Your task to perform on an android device: Go to display settings Image 0: 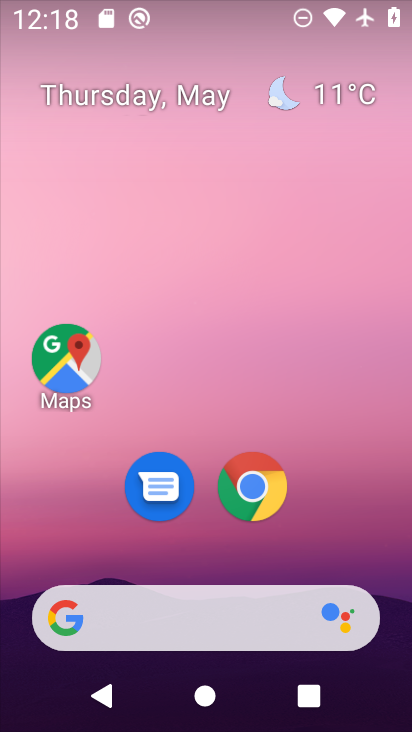
Step 0: drag from (354, 528) to (248, 41)
Your task to perform on an android device: Go to display settings Image 1: 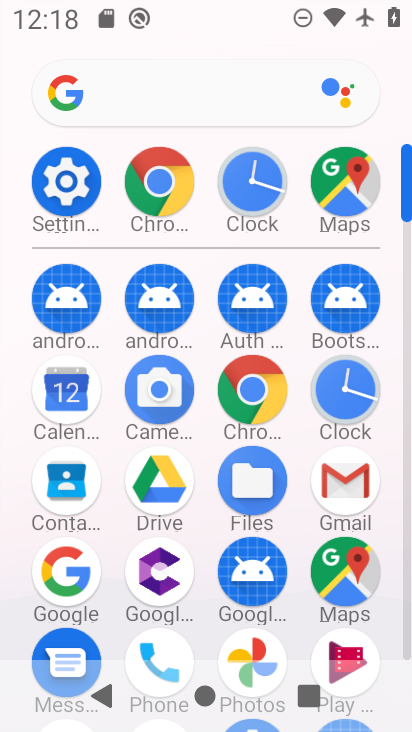
Step 1: drag from (13, 587) to (1, 287)
Your task to perform on an android device: Go to display settings Image 2: 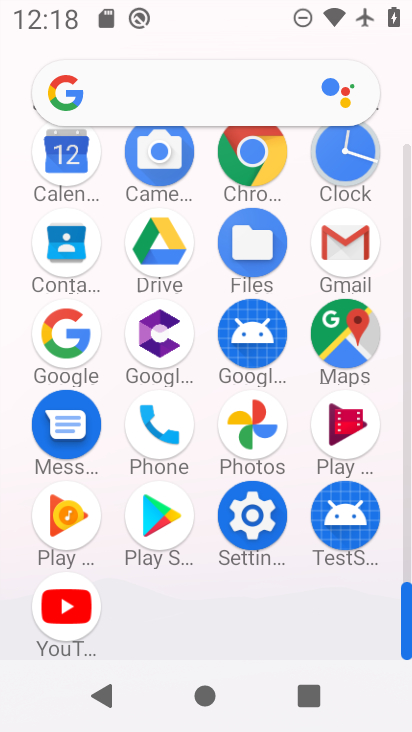
Step 2: click (251, 513)
Your task to perform on an android device: Go to display settings Image 3: 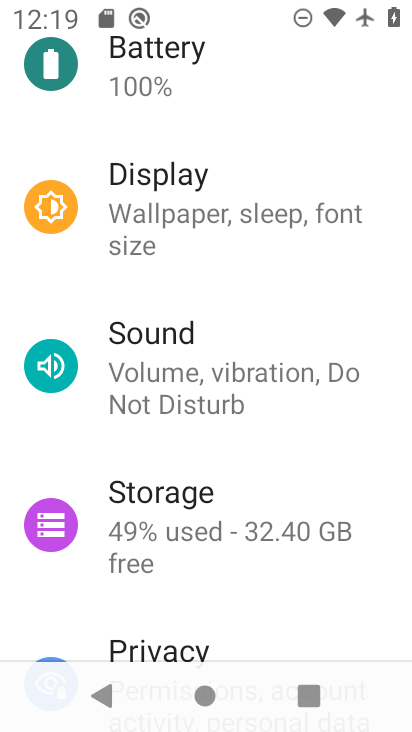
Step 3: drag from (255, 467) to (252, 154)
Your task to perform on an android device: Go to display settings Image 4: 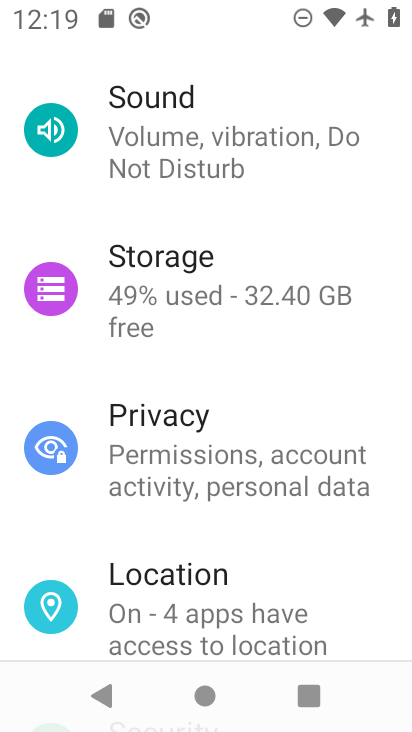
Step 4: drag from (268, 227) to (310, 565)
Your task to perform on an android device: Go to display settings Image 5: 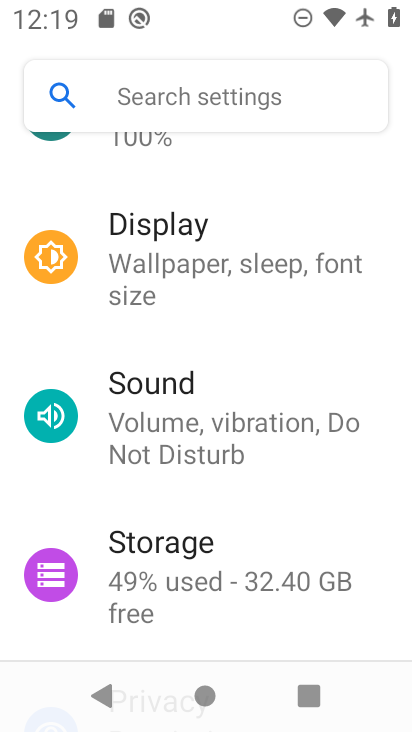
Step 5: click (217, 246)
Your task to perform on an android device: Go to display settings Image 6: 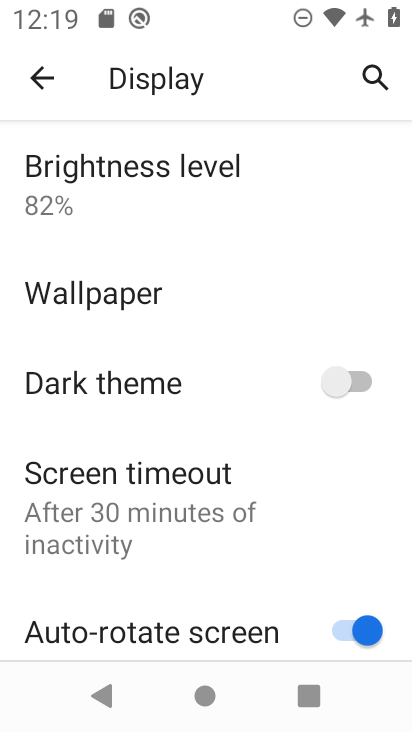
Step 6: drag from (245, 553) to (224, 132)
Your task to perform on an android device: Go to display settings Image 7: 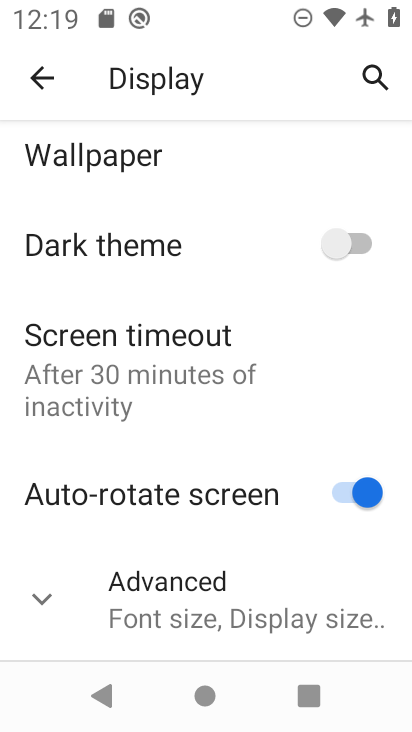
Step 7: click (30, 591)
Your task to perform on an android device: Go to display settings Image 8: 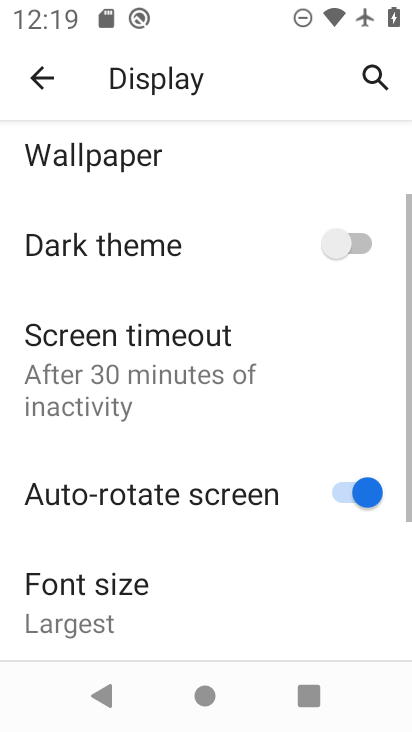
Step 8: task complete